Your task to perform on an android device: Open maps Image 0: 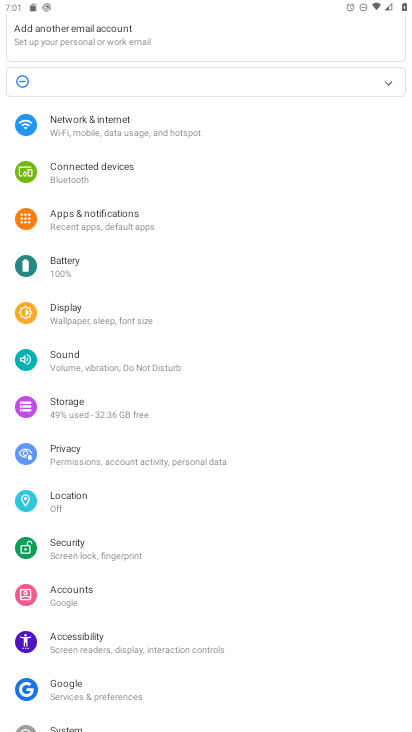
Step 0: press home button
Your task to perform on an android device: Open maps Image 1: 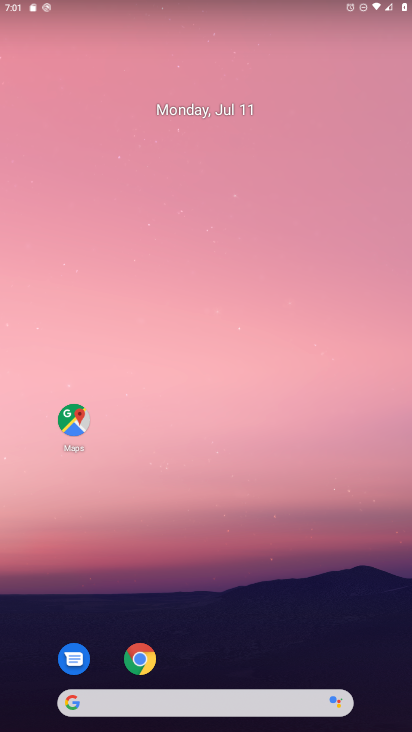
Step 1: click (75, 420)
Your task to perform on an android device: Open maps Image 2: 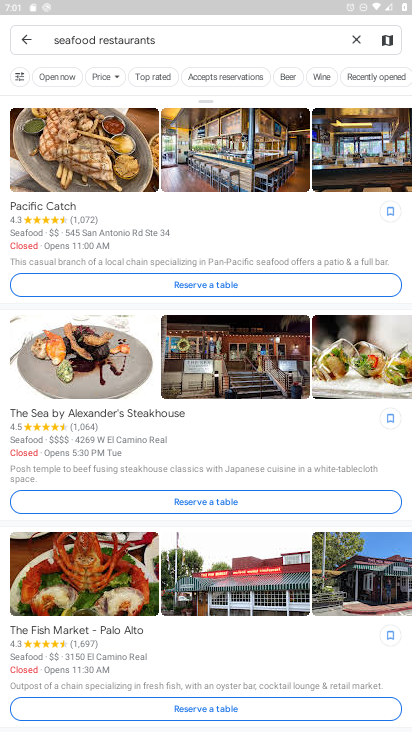
Step 2: click (355, 40)
Your task to perform on an android device: Open maps Image 3: 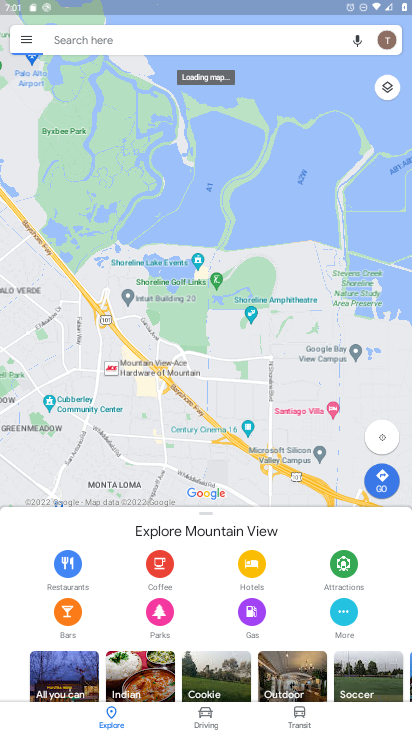
Step 3: task complete